Your task to perform on an android device: Open Chrome and go to settings Image 0: 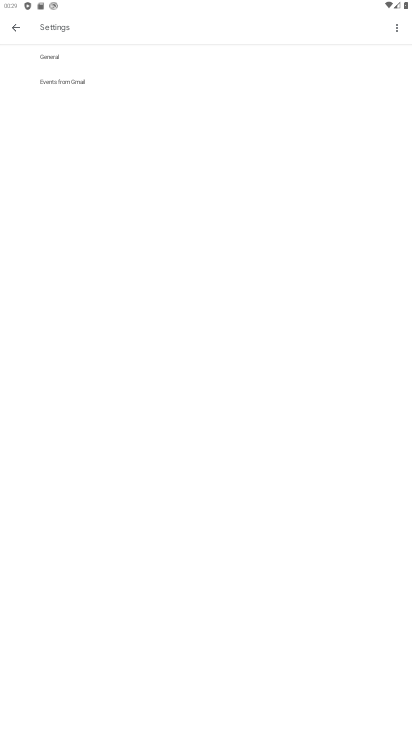
Step 0: press home button
Your task to perform on an android device: Open Chrome and go to settings Image 1: 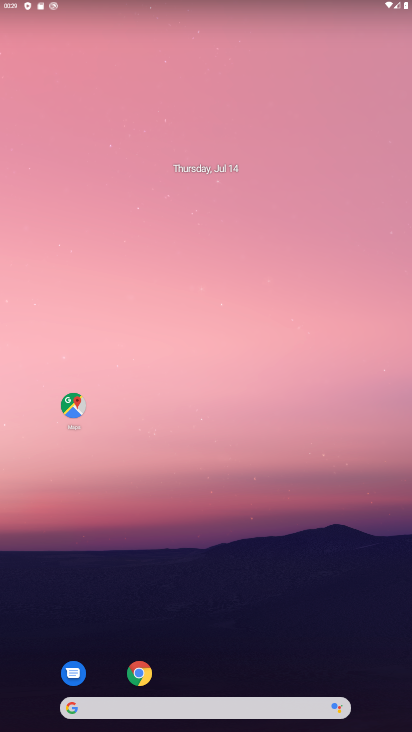
Step 1: click (151, 677)
Your task to perform on an android device: Open Chrome and go to settings Image 2: 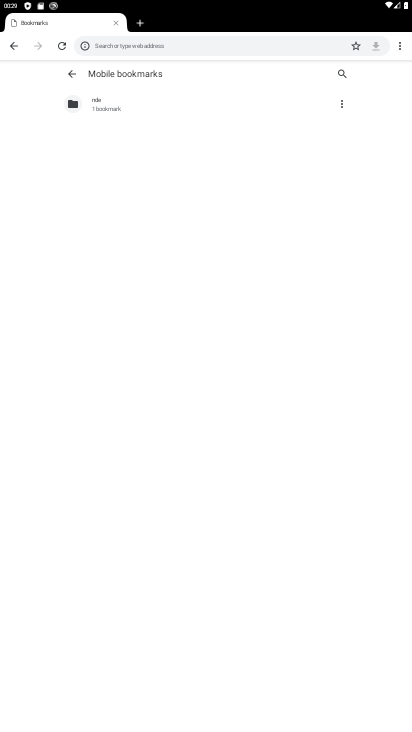
Step 2: click (400, 47)
Your task to perform on an android device: Open Chrome and go to settings Image 3: 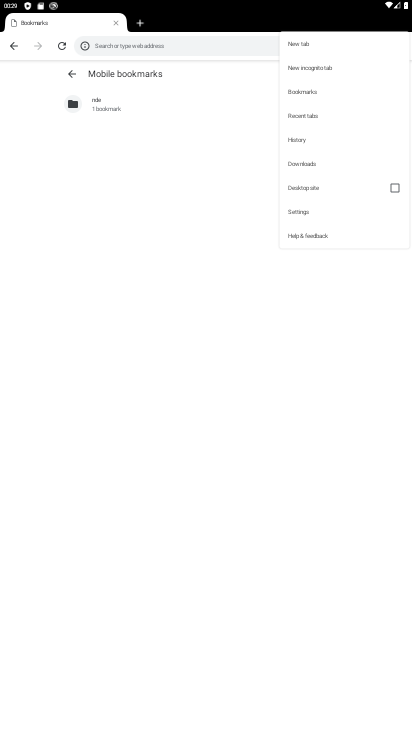
Step 3: click (328, 208)
Your task to perform on an android device: Open Chrome and go to settings Image 4: 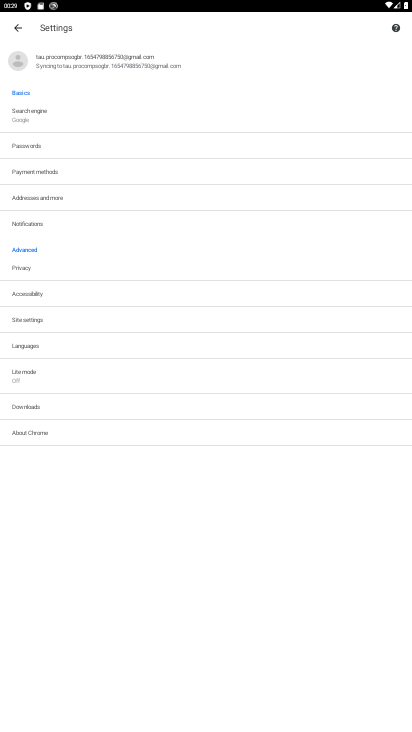
Step 4: task complete